Your task to perform on an android device: set default search engine in the chrome app Image 0: 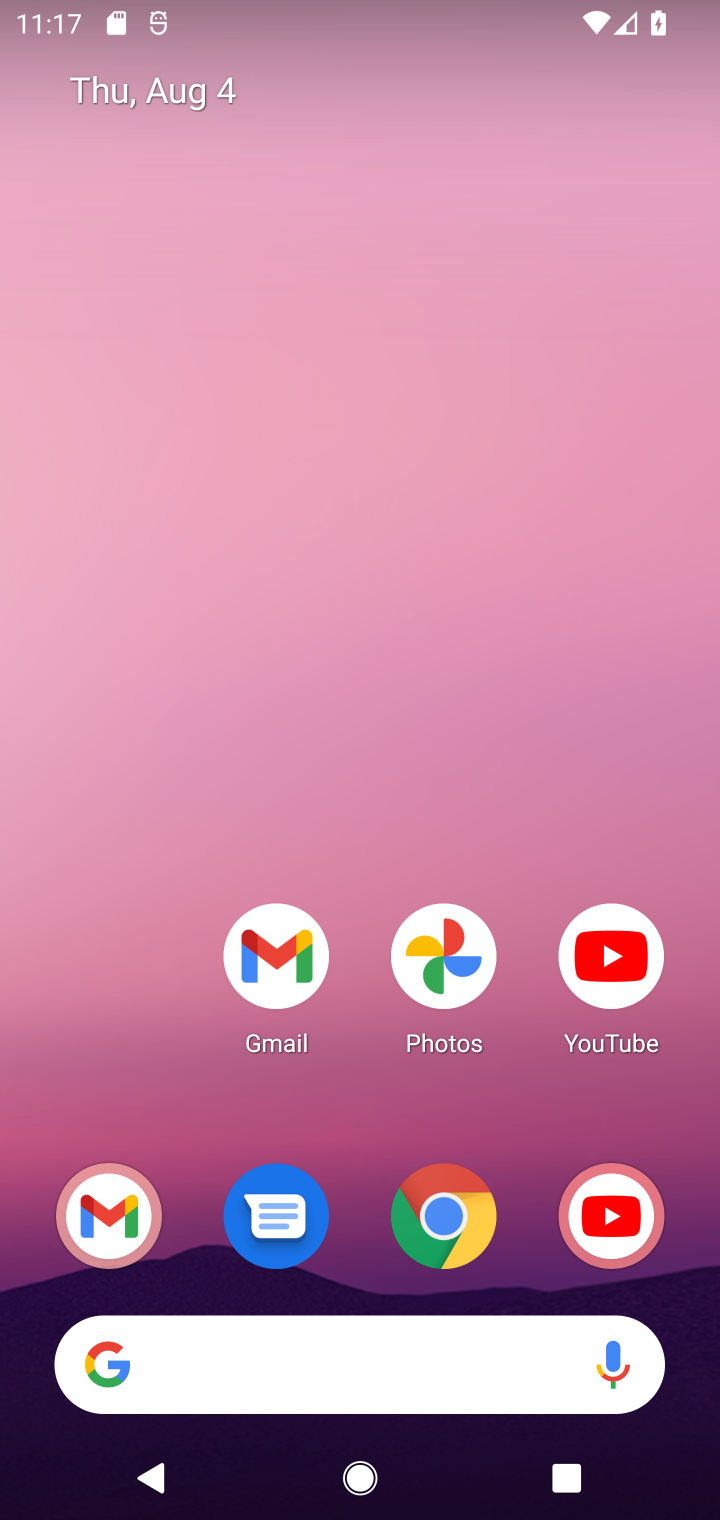
Step 0: click (455, 1208)
Your task to perform on an android device: set default search engine in the chrome app Image 1: 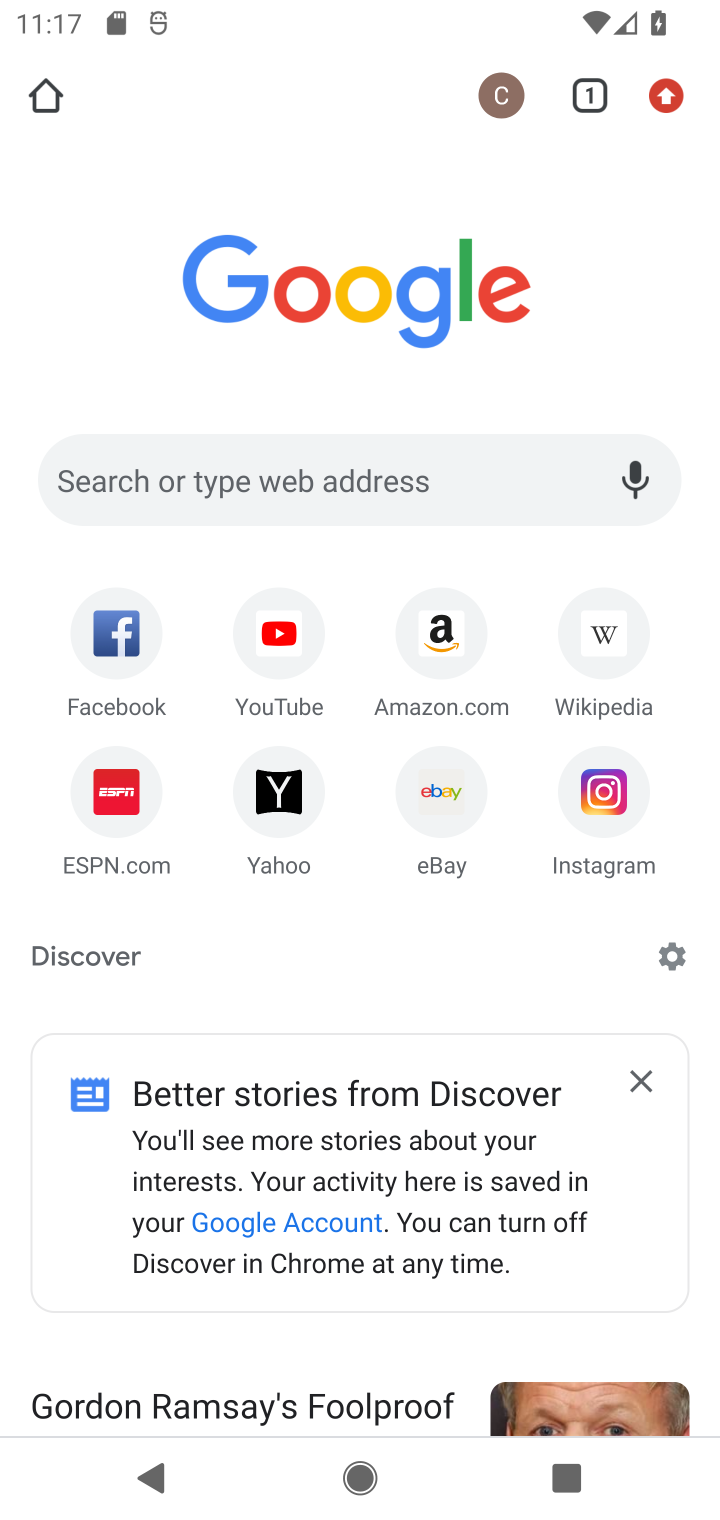
Step 1: click (665, 96)
Your task to perform on an android device: set default search engine in the chrome app Image 2: 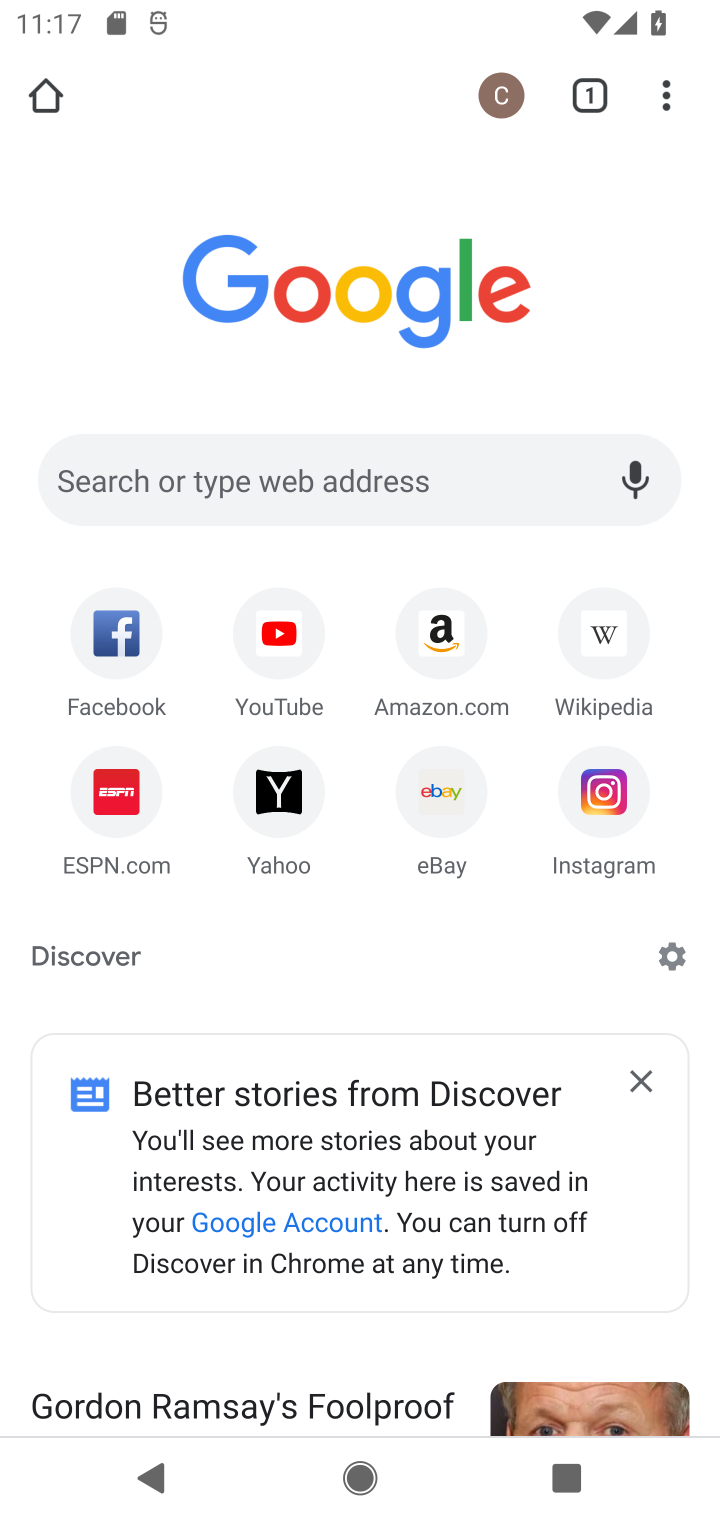
Step 2: click (665, 96)
Your task to perform on an android device: set default search engine in the chrome app Image 3: 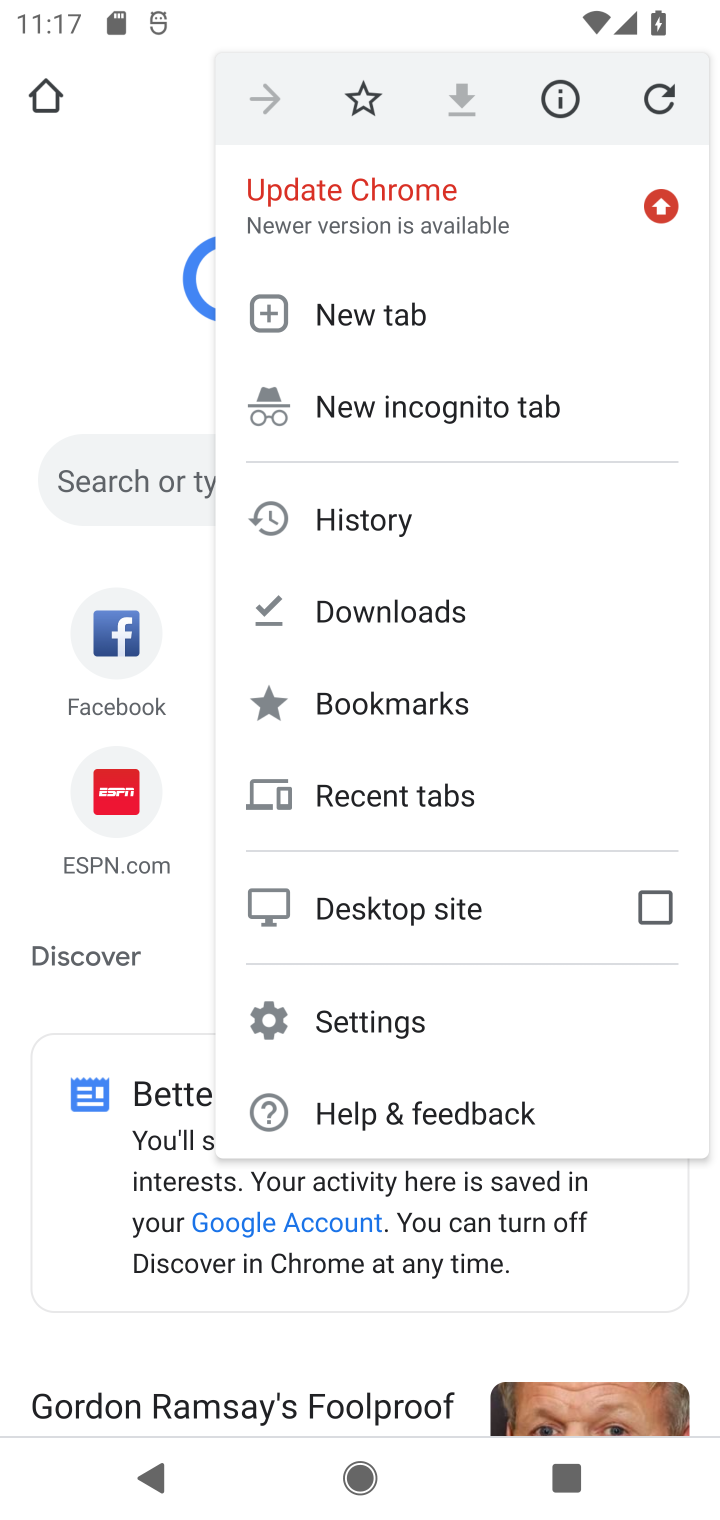
Step 3: click (383, 1007)
Your task to perform on an android device: set default search engine in the chrome app Image 4: 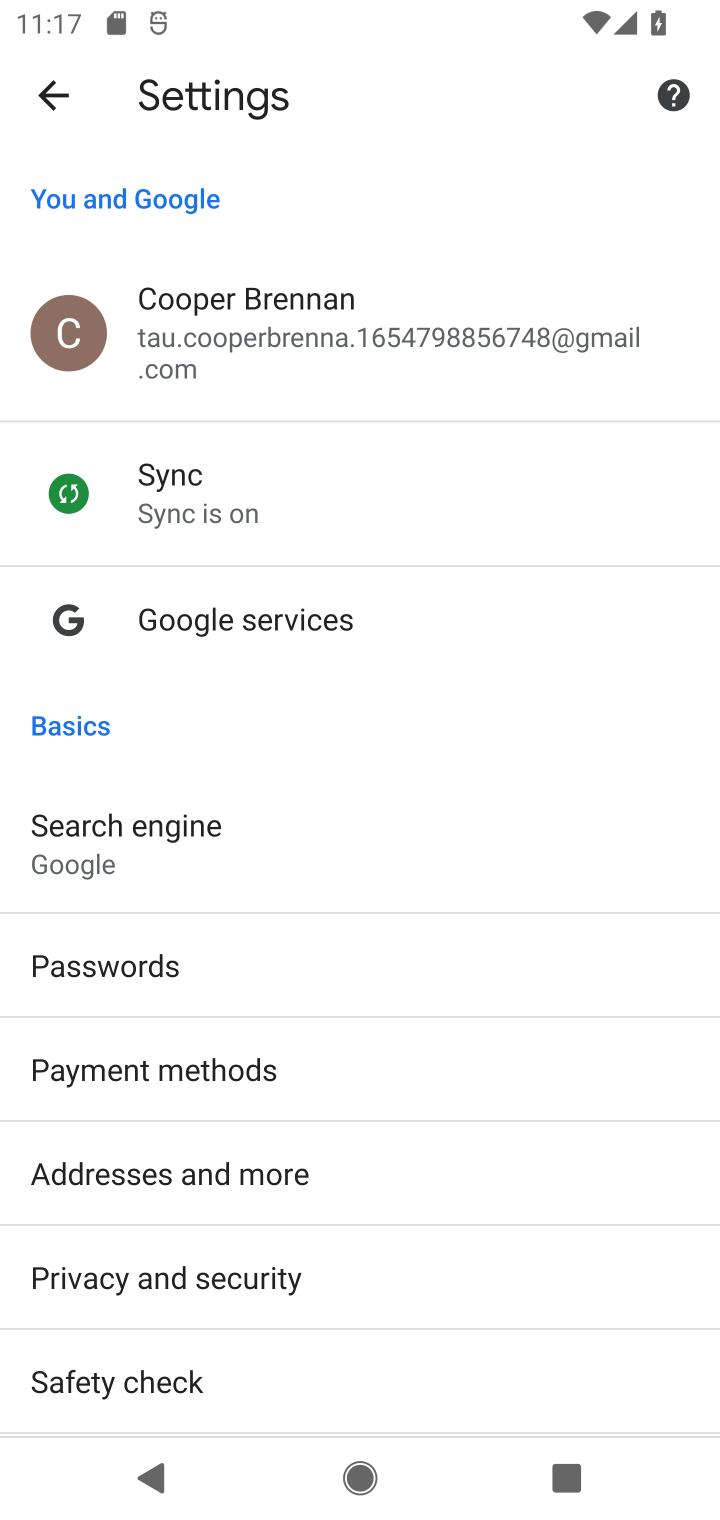
Step 4: click (168, 825)
Your task to perform on an android device: set default search engine in the chrome app Image 5: 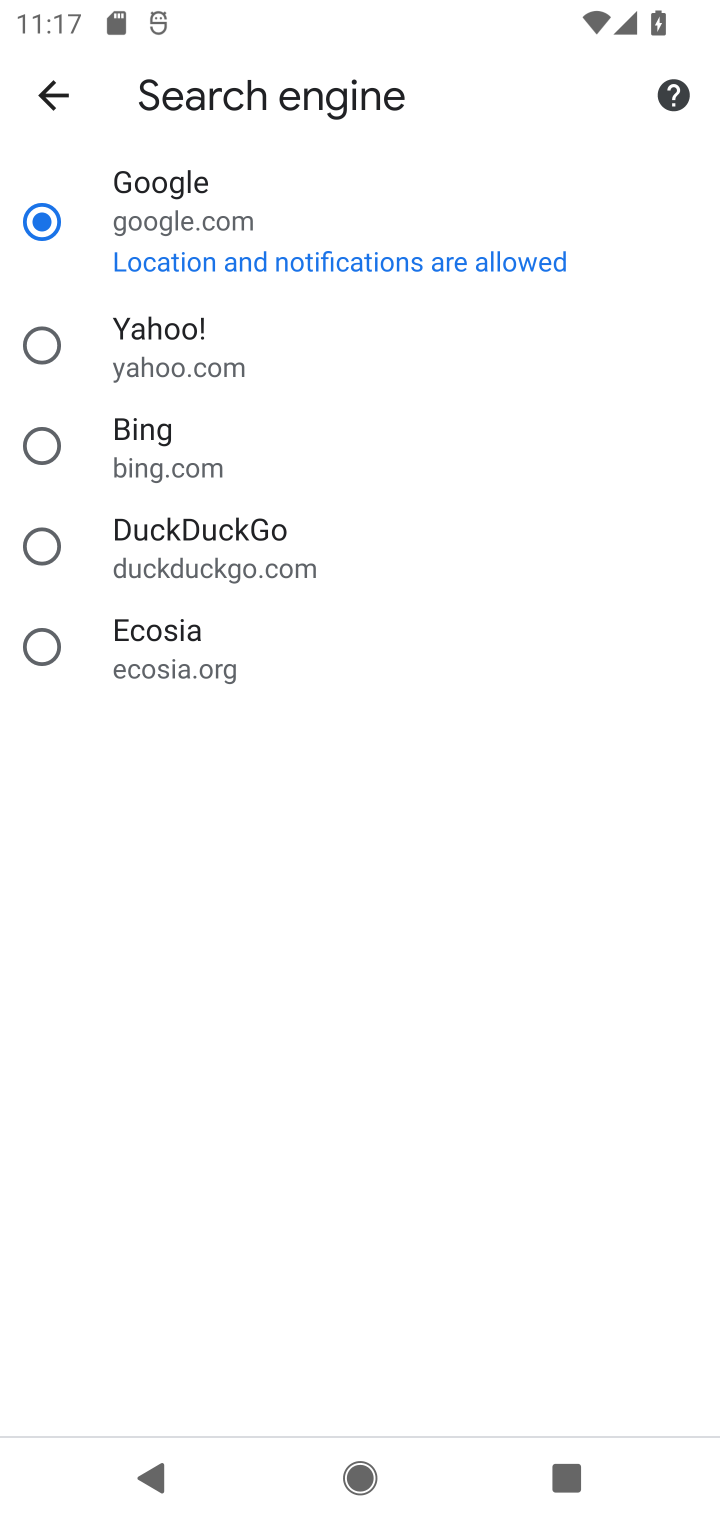
Step 5: task complete